Your task to perform on an android device: When is my next appointment? Image 0: 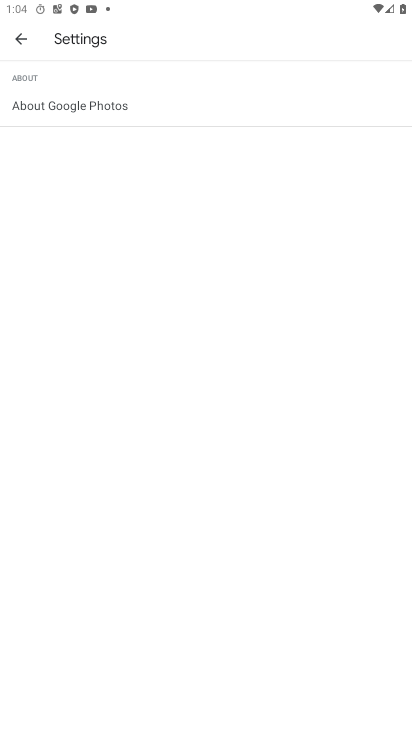
Step 0: press home button
Your task to perform on an android device: When is my next appointment? Image 1: 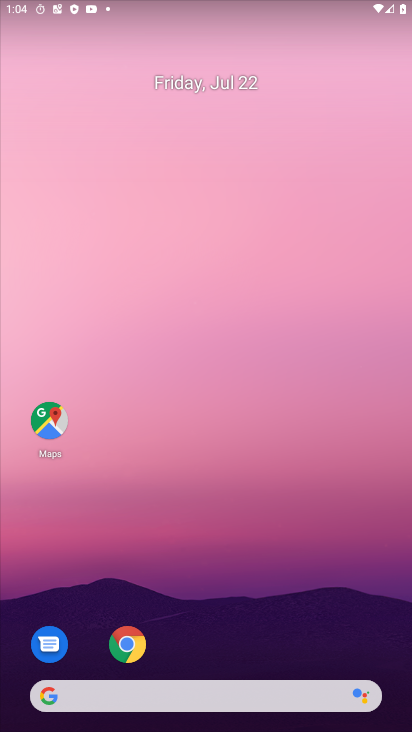
Step 1: drag from (329, 640) to (367, 224)
Your task to perform on an android device: When is my next appointment? Image 2: 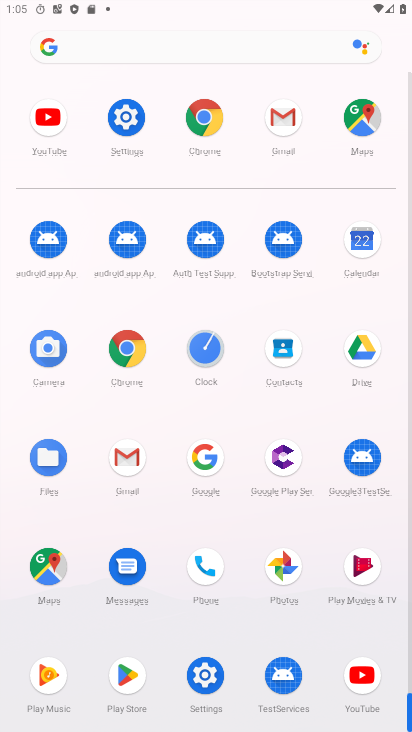
Step 2: click (357, 270)
Your task to perform on an android device: When is my next appointment? Image 3: 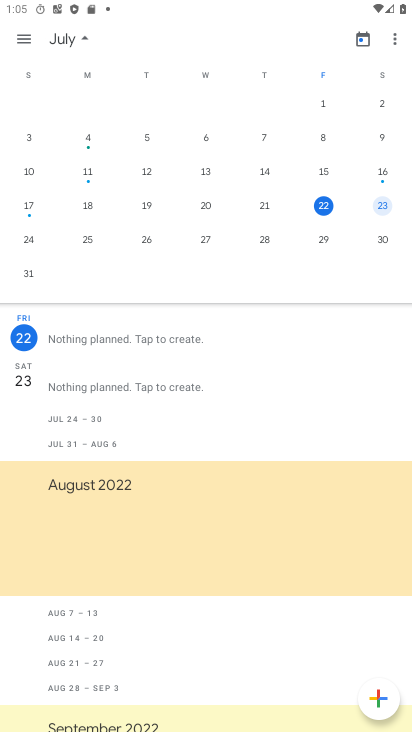
Step 3: click (23, 37)
Your task to perform on an android device: When is my next appointment? Image 4: 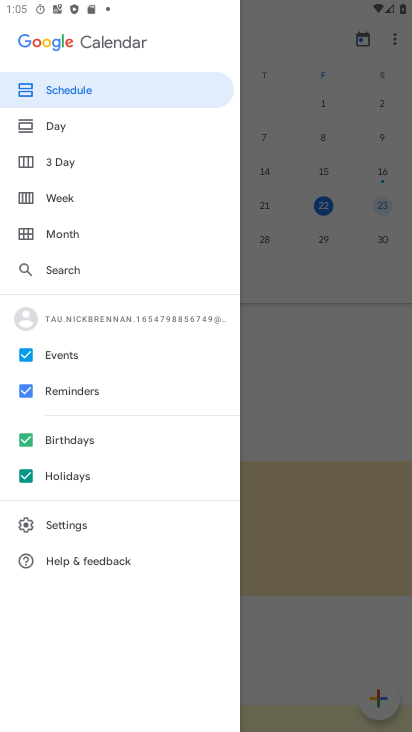
Step 4: click (26, 472)
Your task to perform on an android device: When is my next appointment? Image 5: 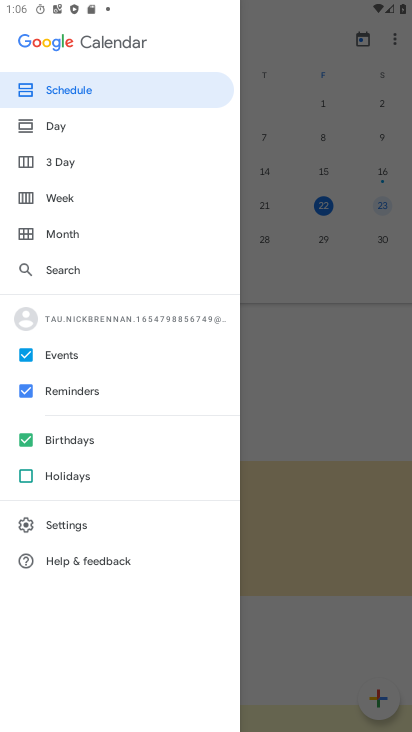
Step 5: click (26, 441)
Your task to perform on an android device: When is my next appointment? Image 6: 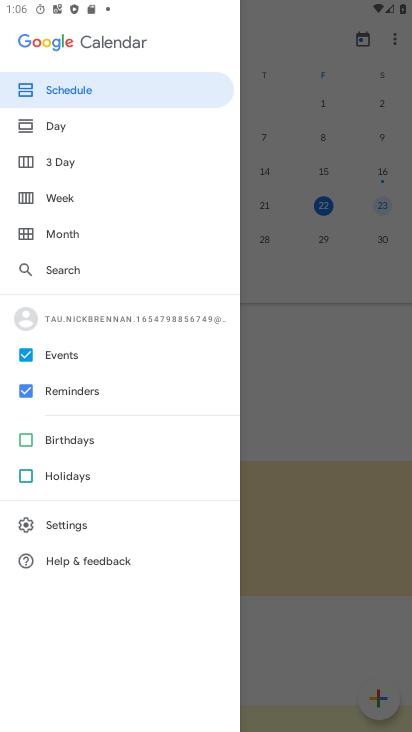
Step 6: click (357, 376)
Your task to perform on an android device: When is my next appointment? Image 7: 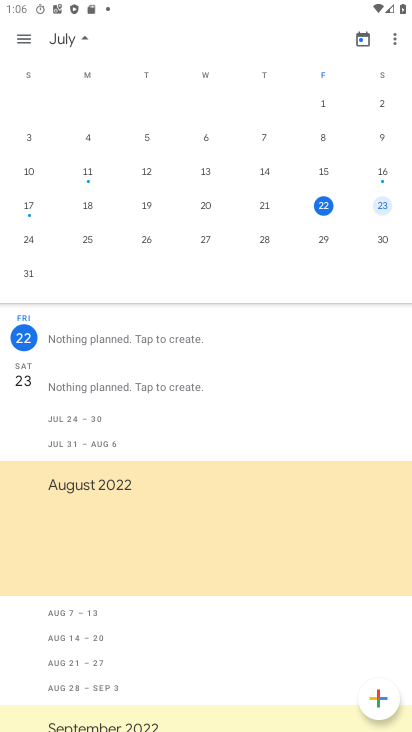
Step 7: task complete